Your task to perform on an android device: Go to Google Image 0: 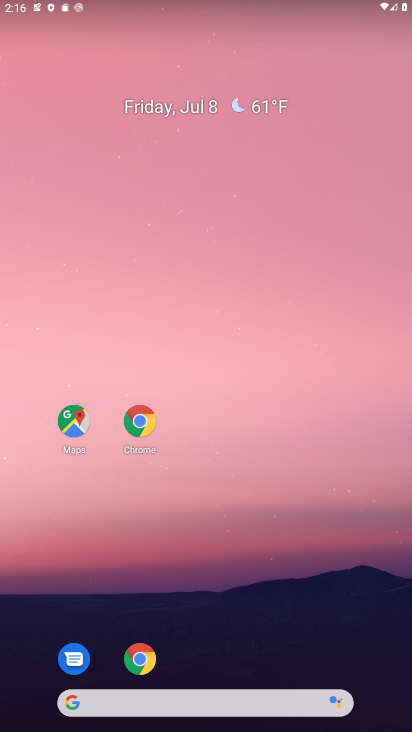
Step 0: click (207, 255)
Your task to perform on an android device: Go to Google Image 1: 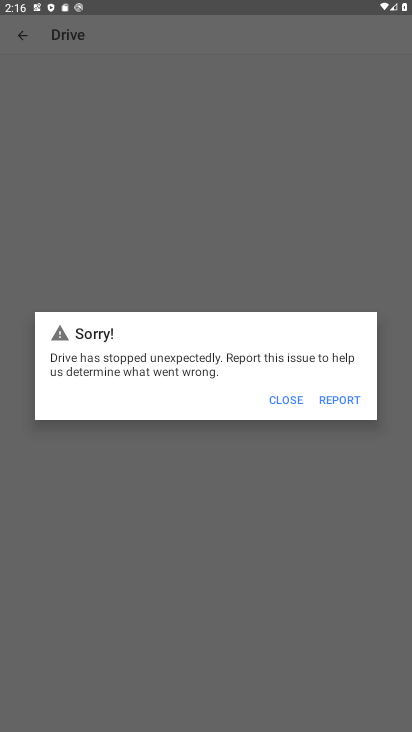
Step 1: press home button
Your task to perform on an android device: Go to Google Image 2: 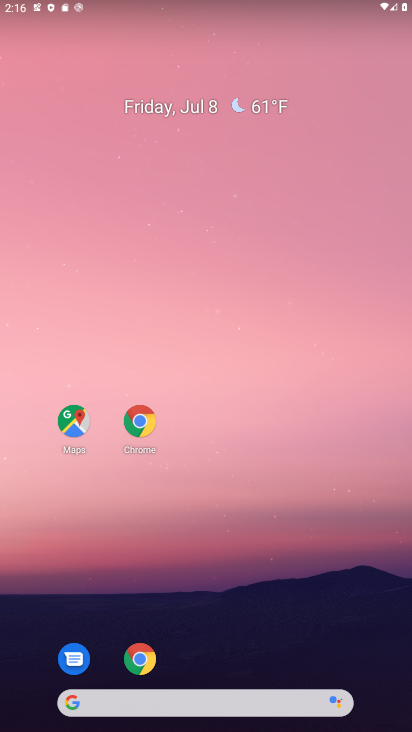
Step 2: drag from (207, 675) to (254, 115)
Your task to perform on an android device: Go to Google Image 3: 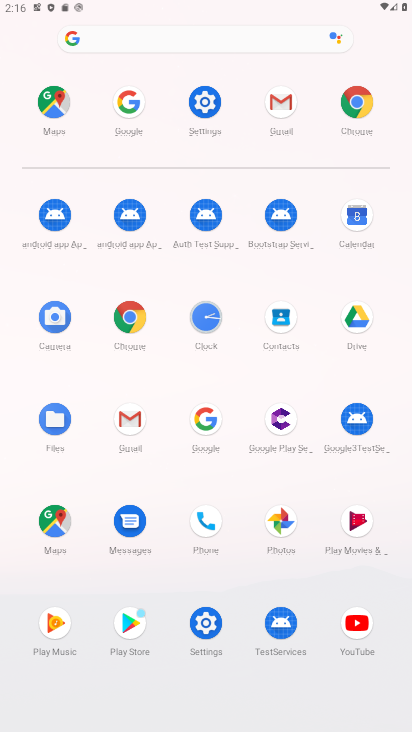
Step 3: click (215, 427)
Your task to perform on an android device: Go to Google Image 4: 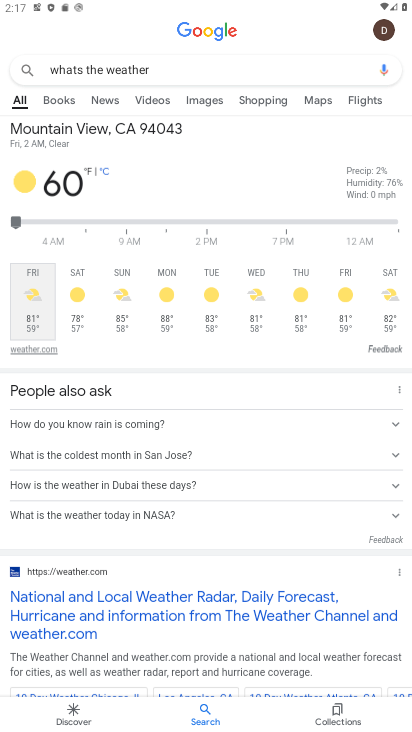
Step 4: task complete